Your task to perform on an android device: Open accessibility settings Image 0: 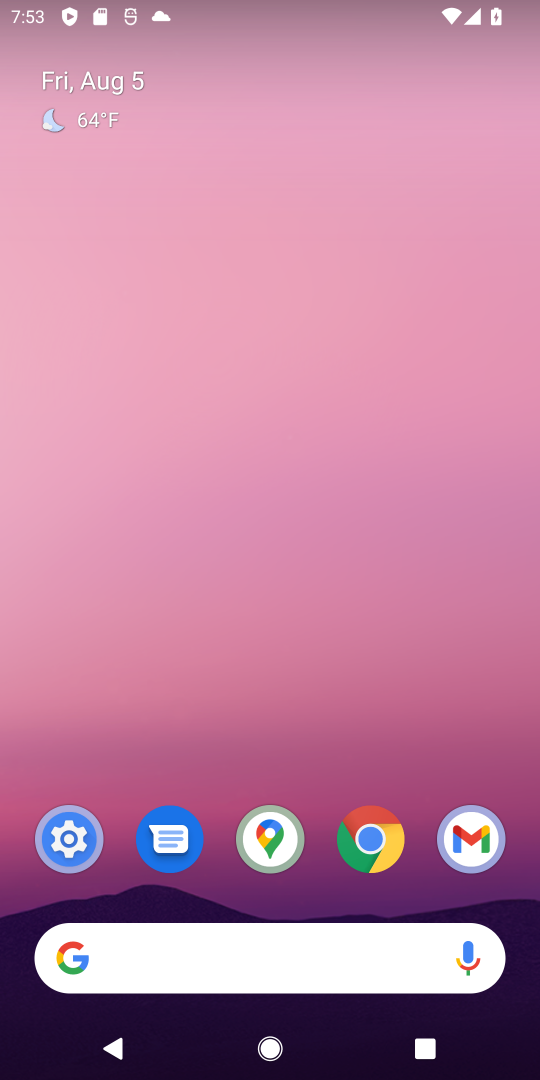
Step 0: drag from (314, 453) to (315, 44)
Your task to perform on an android device: Open accessibility settings Image 1: 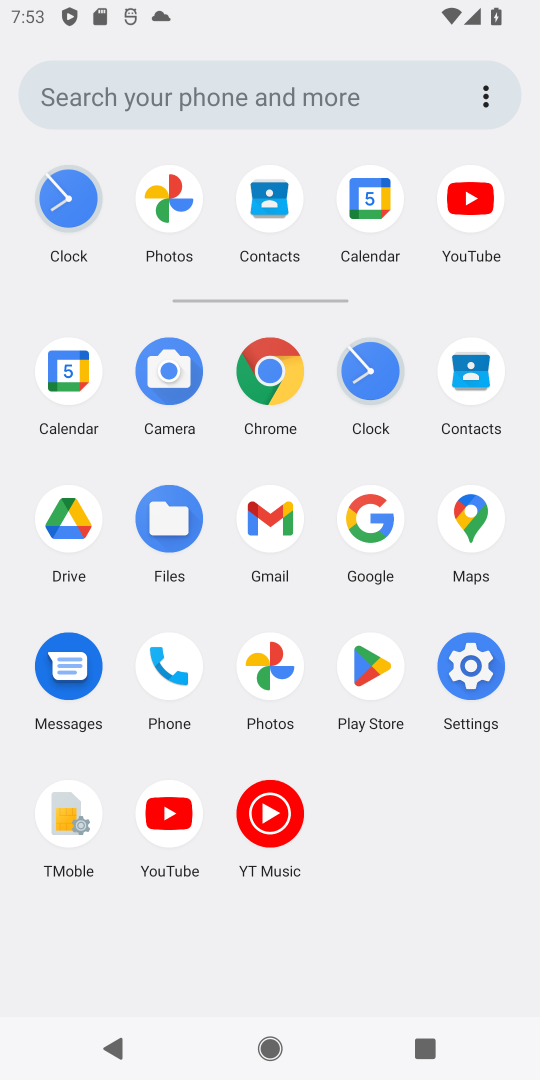
Step 1: click (462, 651)
Your task to perform on an android device: Open accessibility settings Image 2: 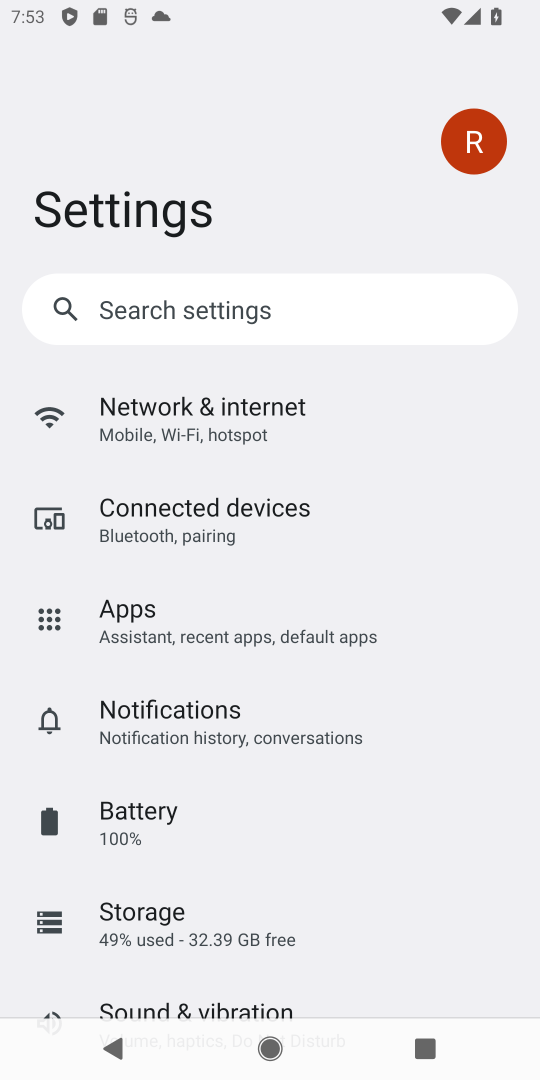
Step 2: drag from (246, 968) to (223, 427)
Your task to perform on an android device: Open accessibility settings Image 3: 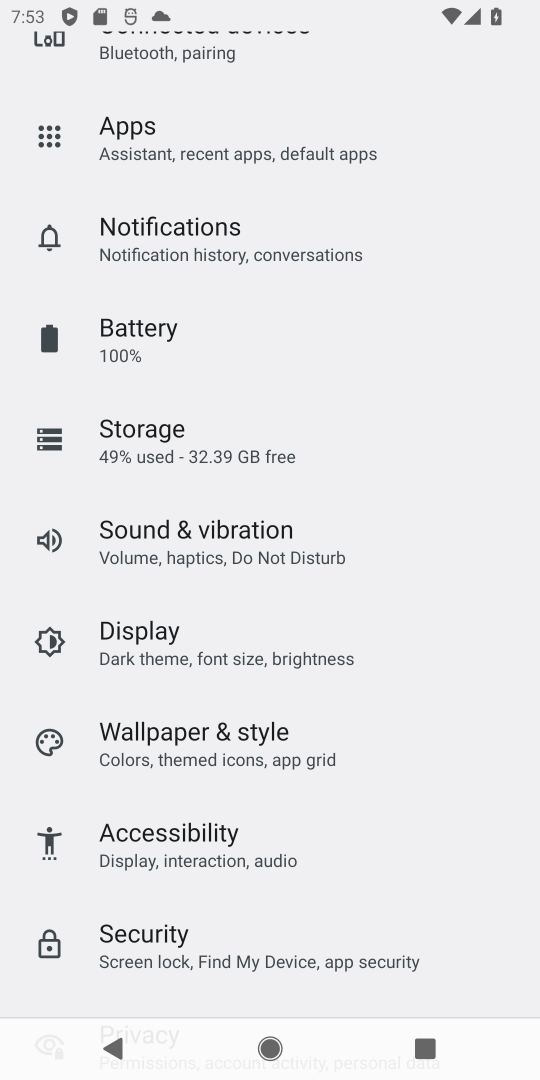
Step 3: click (165, 830)
Your task to perform on an android device: Open accessibility settings Image 4: 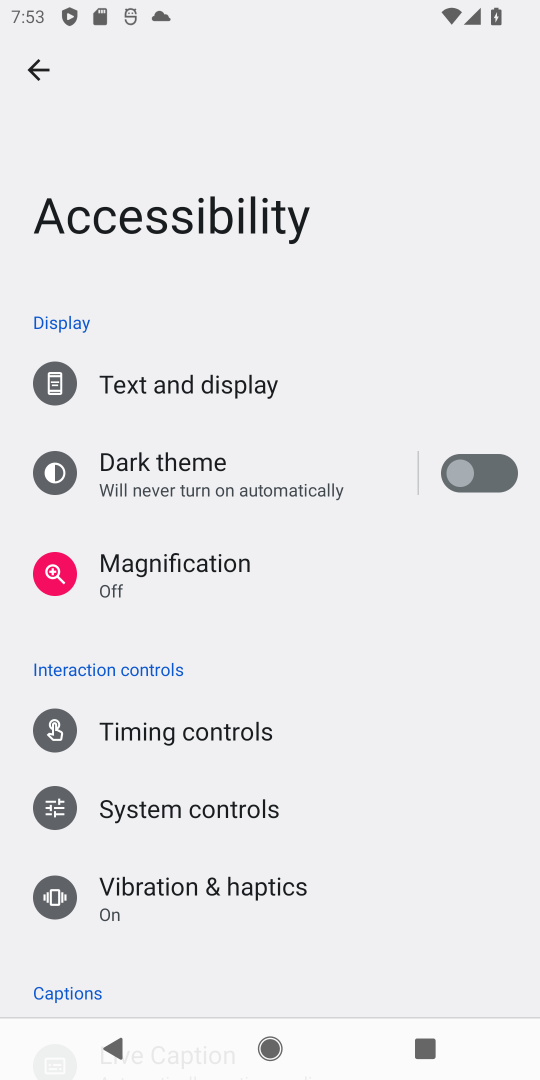
Step 4: task complete